Your task to perform on an android device: empty trash in the gmail app Image 0: 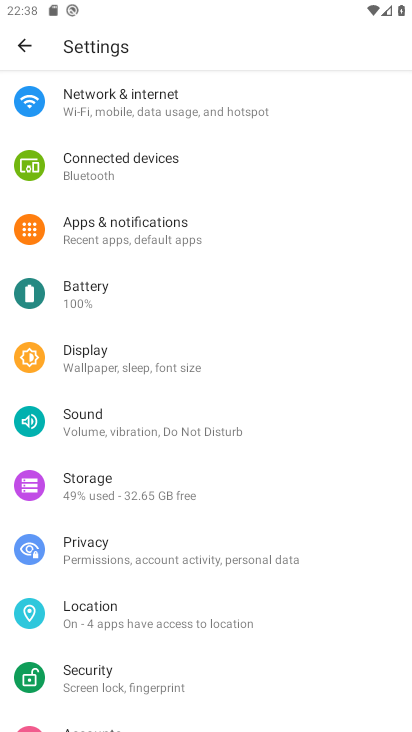
Step 0: drag from (212, 591) to (246, 308)
Your task to perform on an android device: empty trash in the gmail app Image 1: 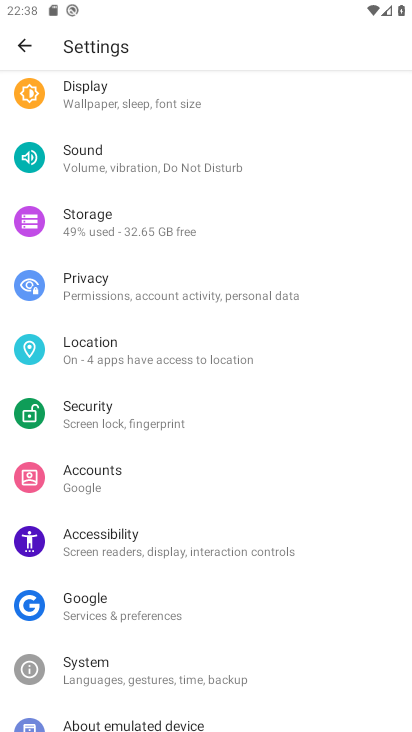
Step 1: press home button
Your task to perform on an android device: empty trash in the gmail app Image 2: 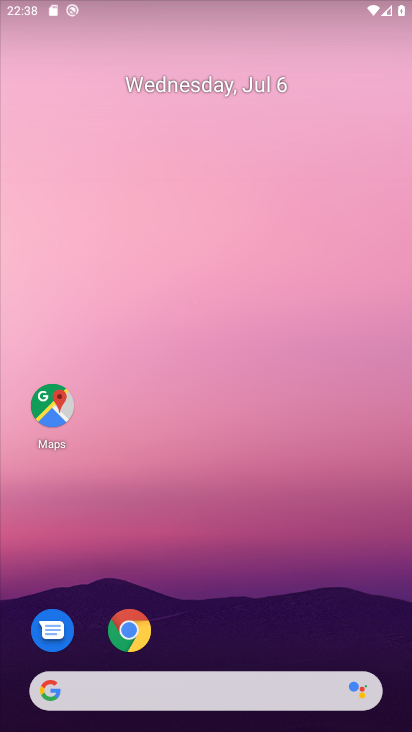
Step 2: drag from (167, 547) to (241, 144)
Your task to perform on an android device: empty trash in the gmail app Image 3: 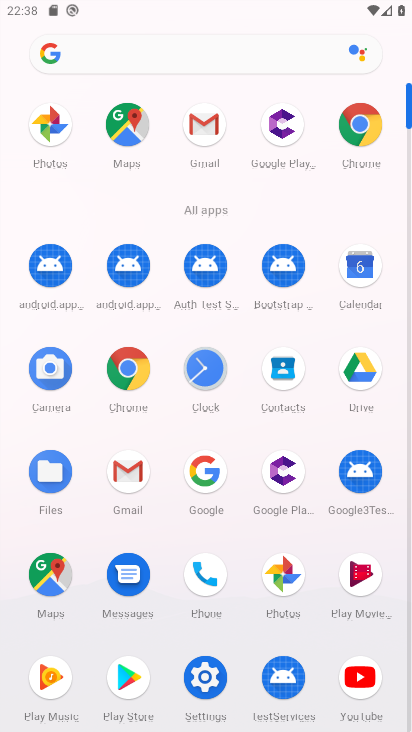
Step 3: click (129, 475)
Your task to perform on an android device: empty trash in the gmail app Image 4: 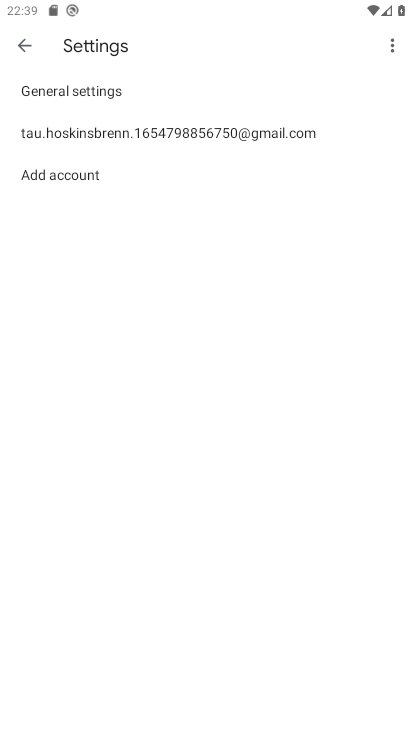
Step 4: click (22, 43)
Your task to perform on an android device: empty trash in the gmail app Image 5: 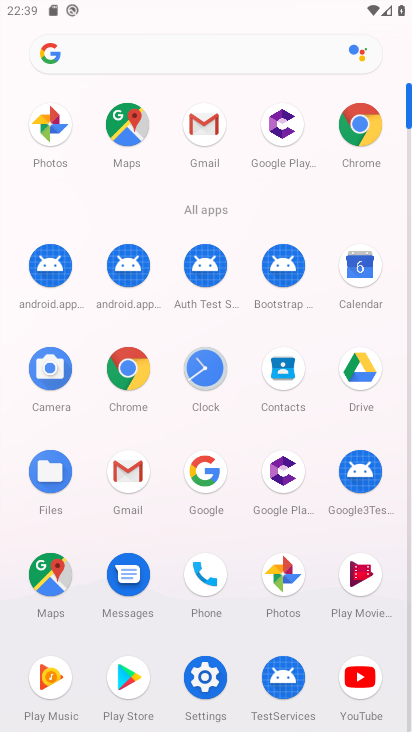
Step 5: click (206, 124)
Your task to perform on an android device: empty trash in the gmail app Image 6: 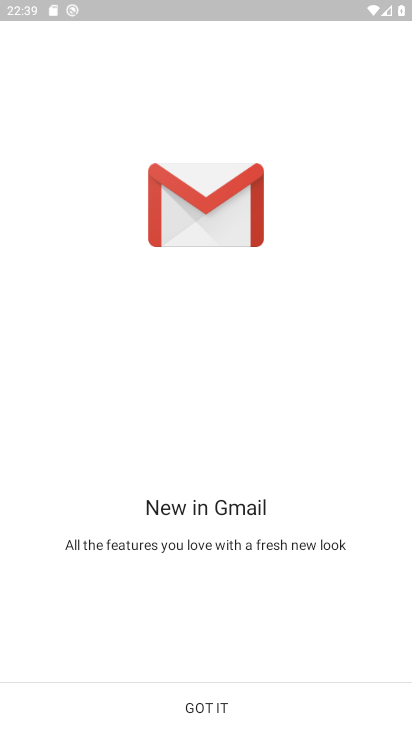
Step 6: click (201, 694)
Your task to perform on an android device: empty trash in the gmail app Image 7: 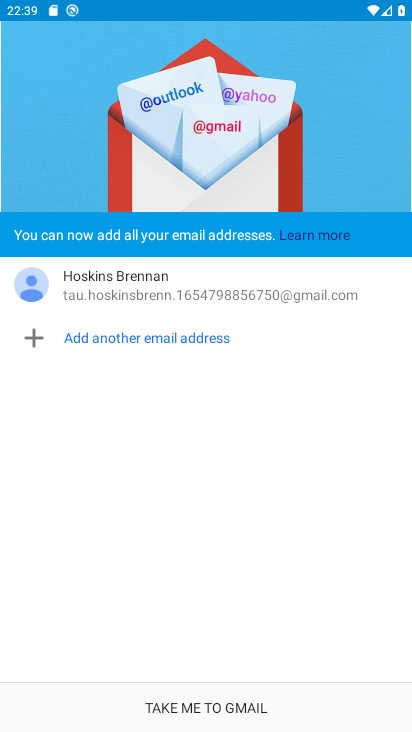
Step 7: click (214, 722)
Your task to perform on an android device: empty trash in the gmail app Image 8: 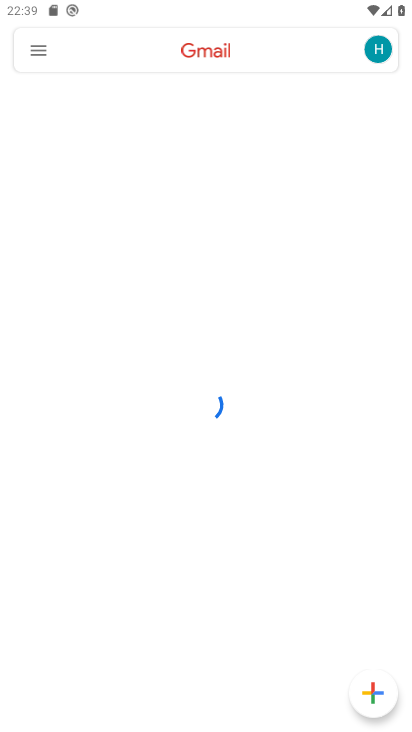
Step 8: click (40, 57)
Your task to perform on an android device: empty trash in the gmail app Image 9: 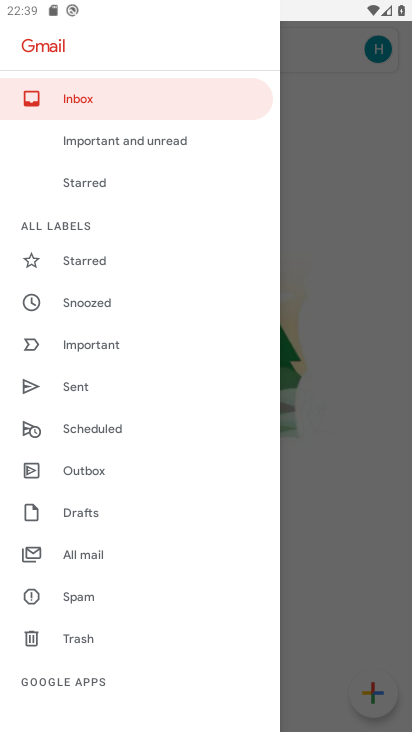
Step 9: click (69, 638)
Your task to perform on an android device: empty trash in the gmail app Image 10: 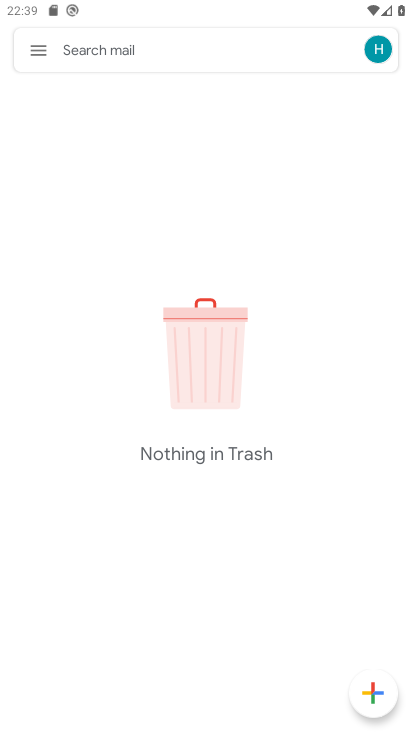
Step 10: task complete